Your task to perform on an android device: turn on location history Image 0: 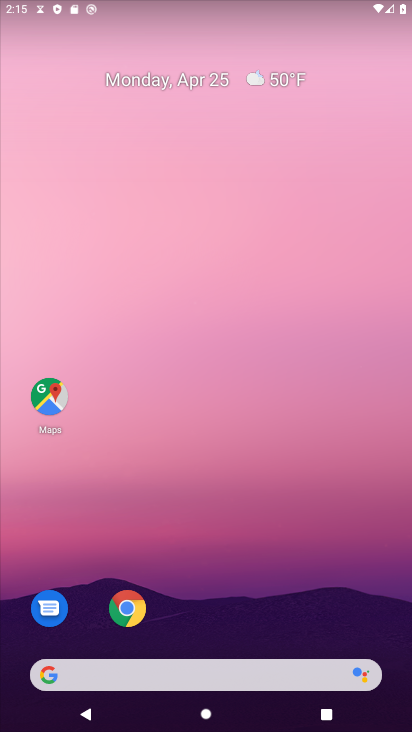
Step 0: drag from (205, 616) to (241, 135)
Your task to perform on an android device: turn on location history Image 1: 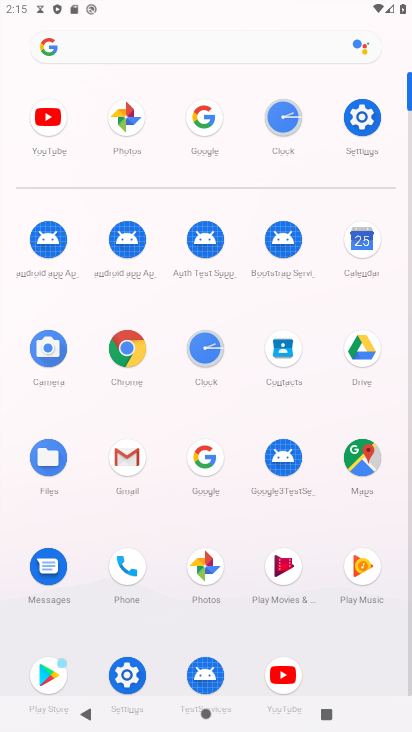
Step 1: click (354, 114)
Your task to perform on an android device: turn on location history Image 2: 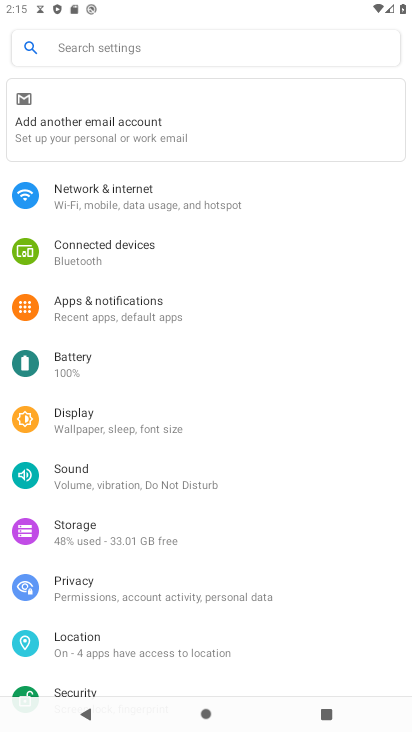
Step 2: click (128, 641)
Your task to perform on an android device: turn on location history Image 3: 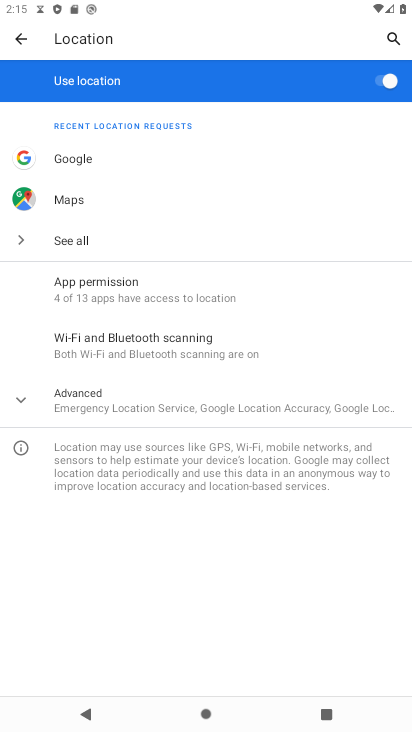
Step 3: click (114, 405)
Your task to perform on an android device: turn on location history Image 4: 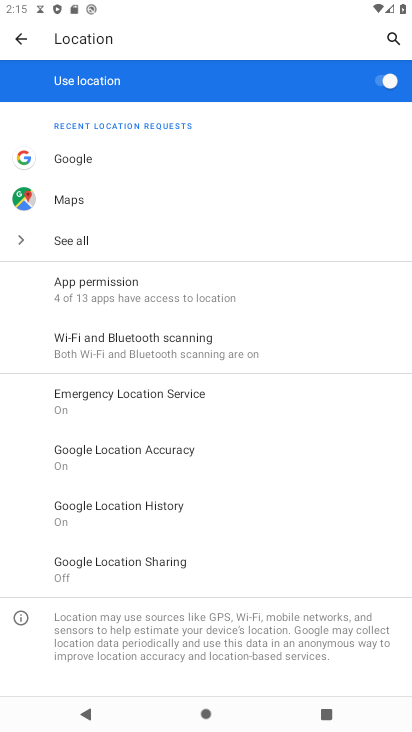
Step 4: click (171, 509)
Your task to perform on an android device: turn on location history Image 5: 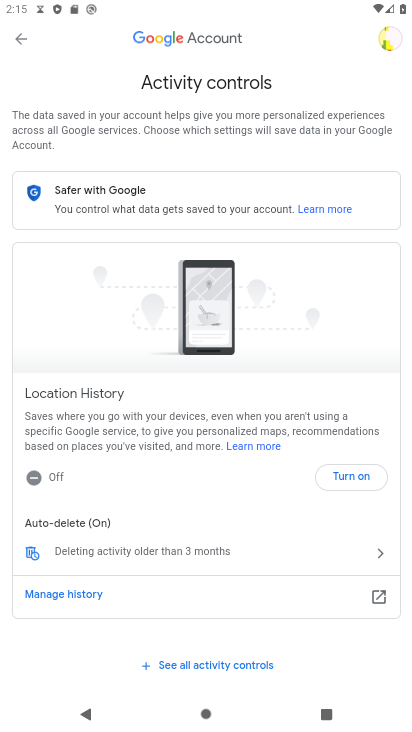
Step 5: click (361, 475)
Your task to perform on an android device: turn on location history Image 6: 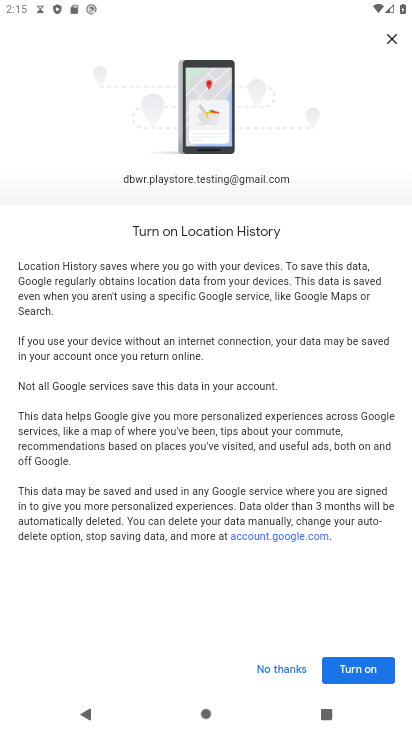
Step 6: click (341, 664)
Your task to perform on an android device: turn on location history Image 7: 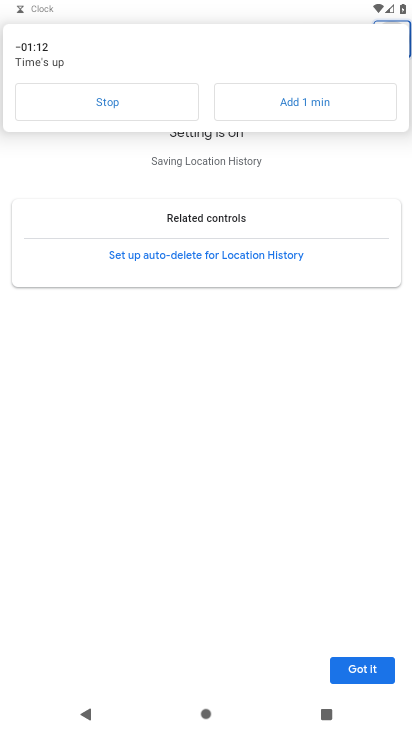
Step 7: task complete